Your task to perform on an android device: check android version Image 0: 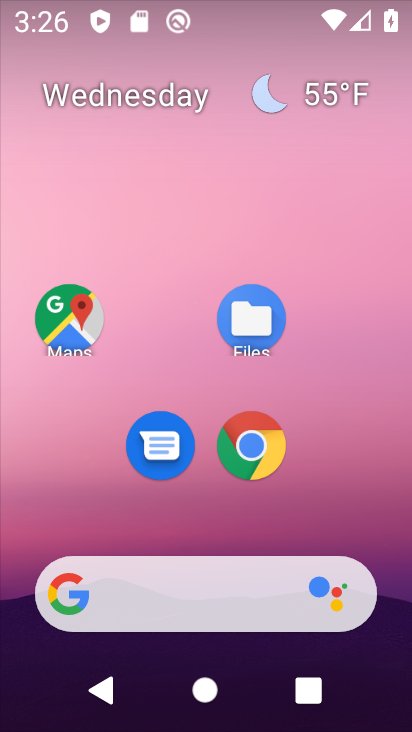
Step 0: drag from (327, 458) to (238, 62)
Your task to perform on an android device: check android version Image 1: 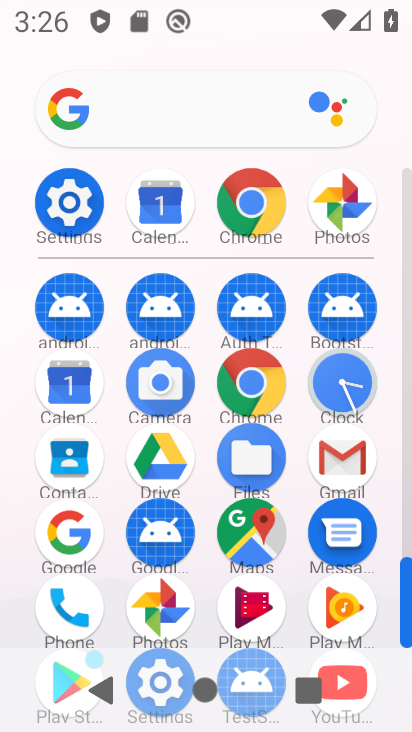
Step 1: click (78, 215)
Your task to perform on an android device: check android version Image 2: 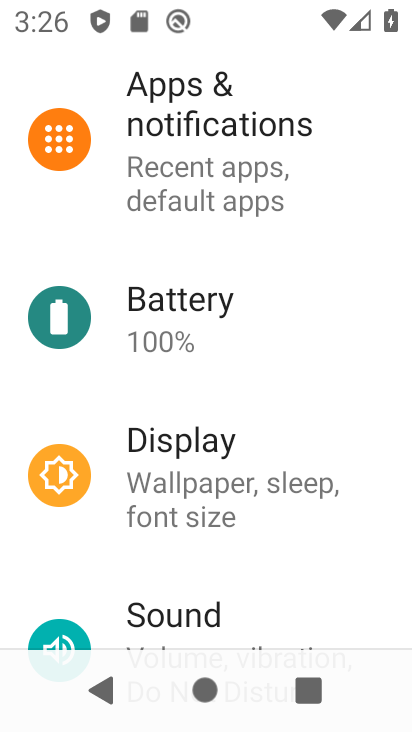
Step 2: drag from (269, 397) to (334, 72)
Your task to perform on an android device: check android version Image 3: 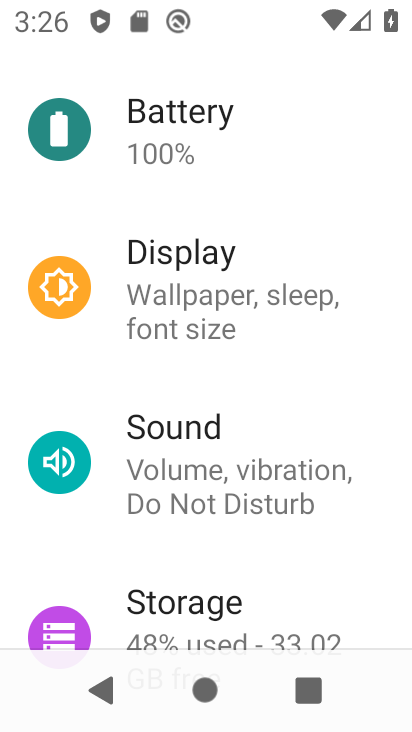
Step 3: drag from (210, 578) to (279, 69)
Your task to perform on an android device: check android version Image 4: 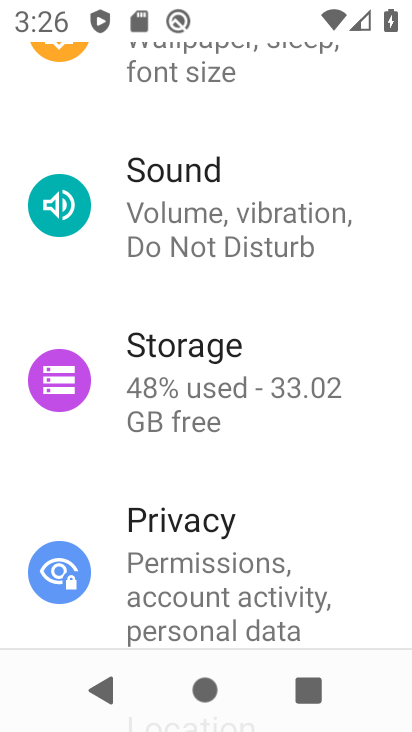
Step 4: drag from (141, 432) to (186, 184)
Your task to perform on an android device: check android version Image 5: 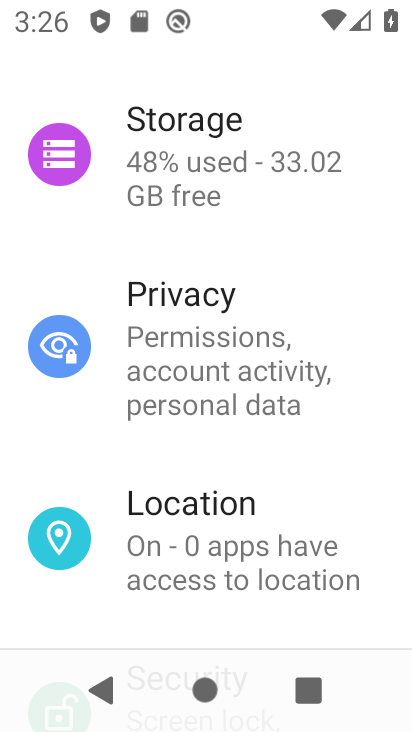
Step 5: drag from (130, 529) to (213, 49)
Your task to perform on an android device: check android version Image 6: 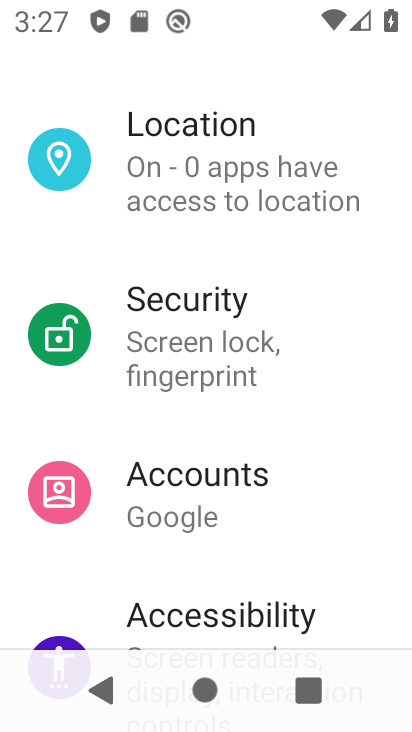
Step 6: drag from (149, 622) to (269, 28)
Your task to perform on an android device: check android version Image 7: 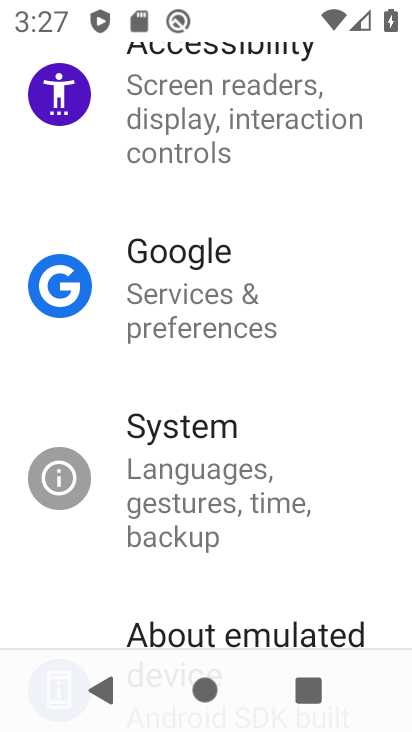
Step 7: click (177, 629)
Your task to perform on an android device: check android version Image 8: 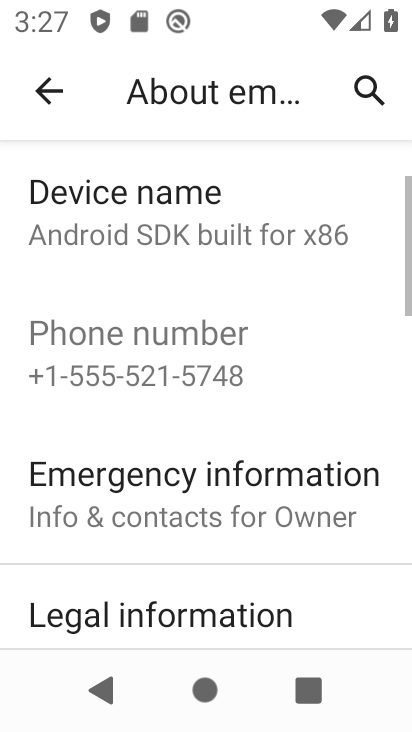
Step 8: task complete